Your task to perform on an android device: find snoozed emails in the gmail app Image 0: 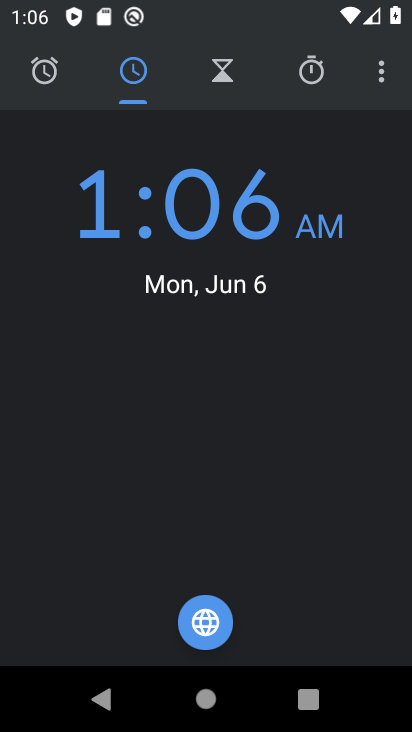
Step 0: press home button
Your task to perform on an android device: find snoozed emails in the gmail app Image 1: 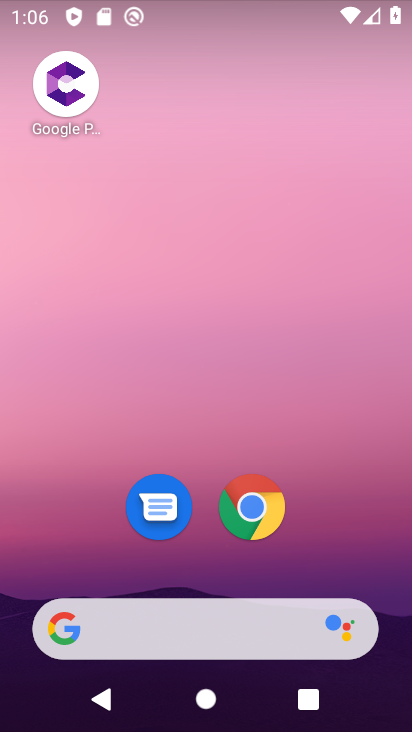
Step 1: drag from (223, 644) to (202, 274)
Your task to perform on an android device: find snoozed emails in the gmail app Image 2: 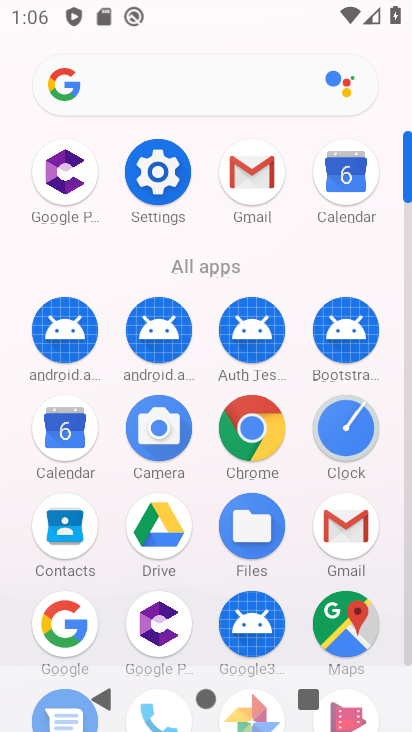
Step 2: click (267, 189)
Your task to perform on an android device: find snoozed emails in the gmail app Image 3: 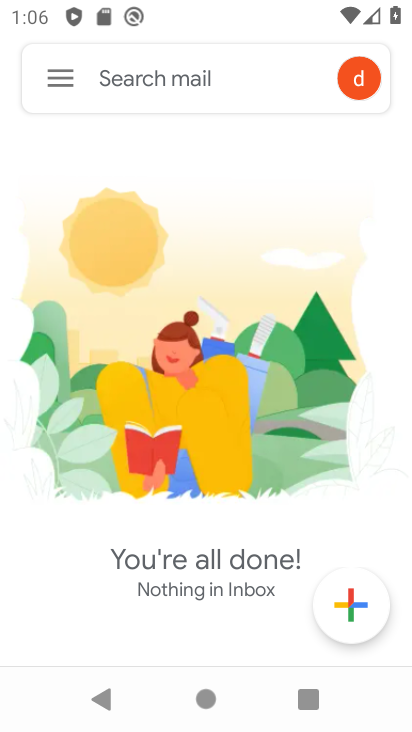
Step 3: click (66, 96)
Your task to perform on an android device: find snoozed emails in the gmail app Image 4: 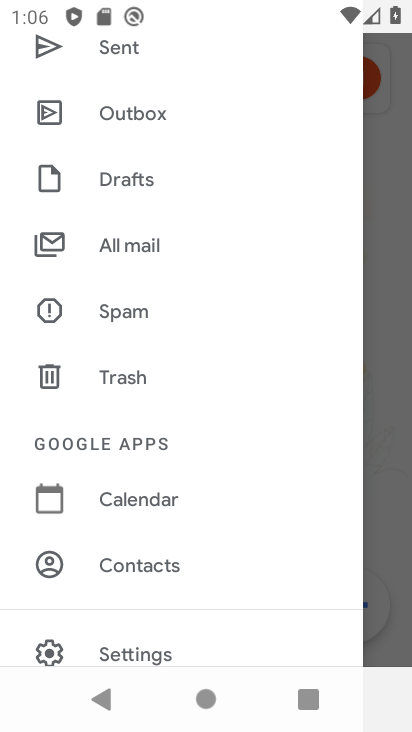
Step 4: drag from (131, 151) to (229, 417)
Your task to perform on an android device: find snoozed emails in the gmail app Image 5: 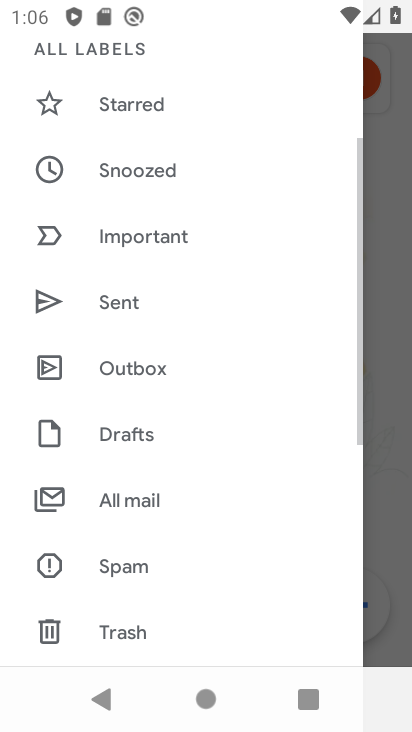
Step 5: click (131, 161)
Your task to perform on an android device: find snoozed emails in the gmail app Image 6: 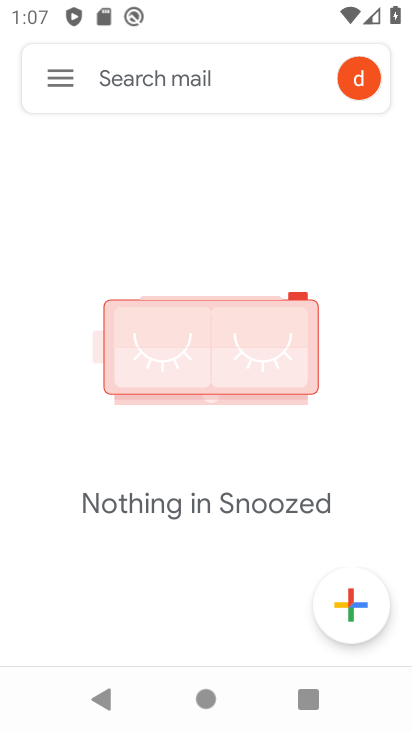
Step 6: task complete